Your task to perform on an android device: Open wifi settings Image 0: 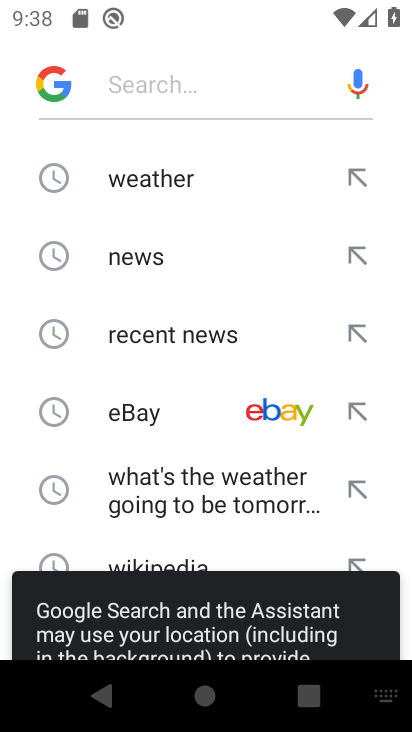
Step 0: press home button
Your task to perform on an android device: Open wifi settings Image 1: 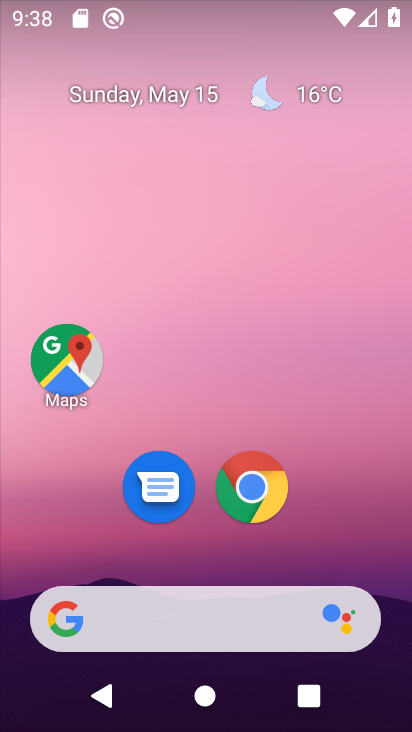
Step 1: drag from (369, 524) to (348, 227)
Your task to perform on an android device: Open wifi settings Image 2: 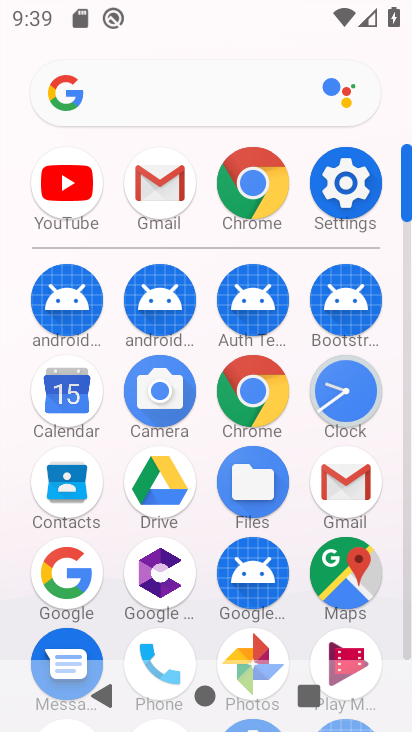
Step 2: click (364, 198)
Your task to perform on an android device: Open wifi settings Image 3: 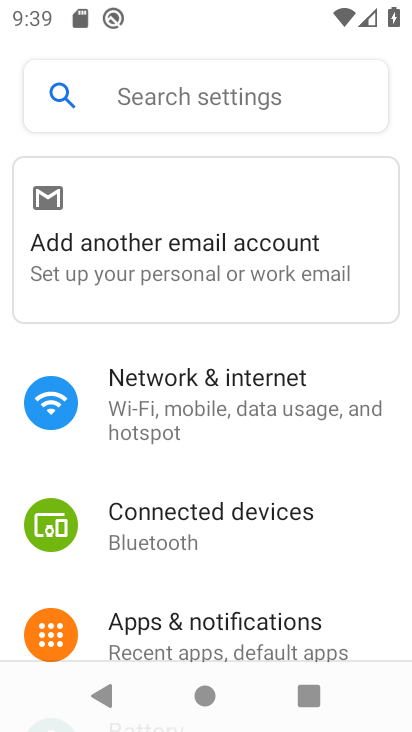
Step 3: click (248, 397)
Your task to perform on an android device: Open wifi settings Image 4: 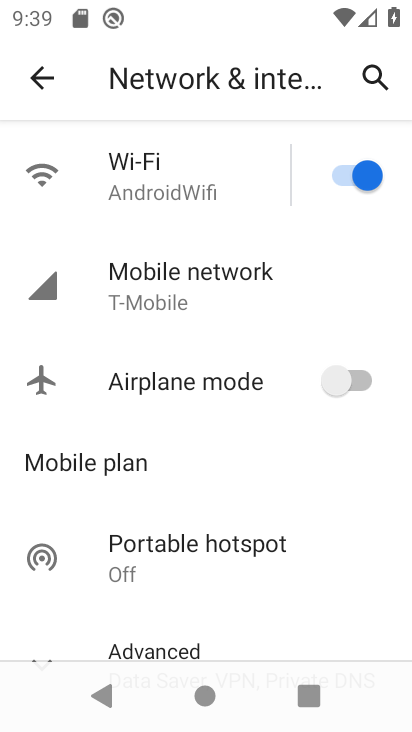
Step 4: task complete